Your task to perform on an android device: Open Youtube and go to the subscriptions tab Image 0: 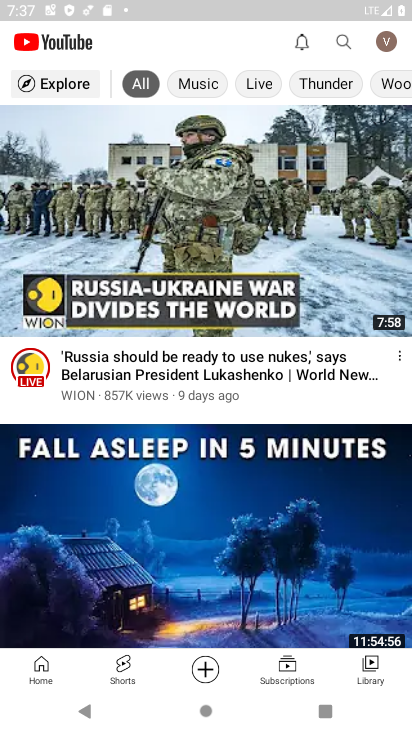
Step 0: press home button
Your task to perform on an android device: Open Youtube and go to the subscriptions tab Image 1: 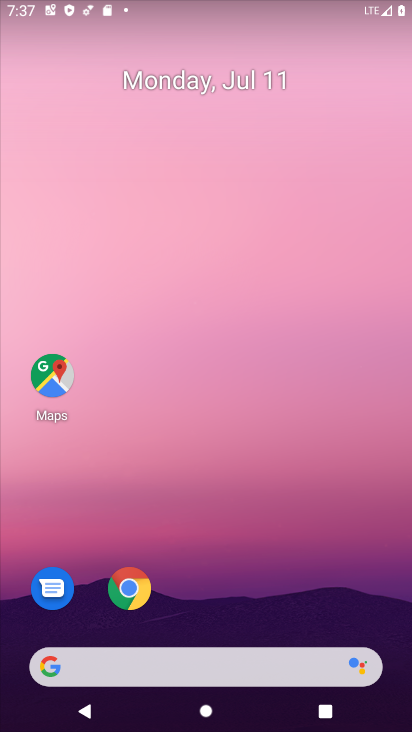
Step 1: drag from (379, 644) to (247, 4)
Your task to perform on an android device: Open Youtube and go to the subscriptions tab Image 2: 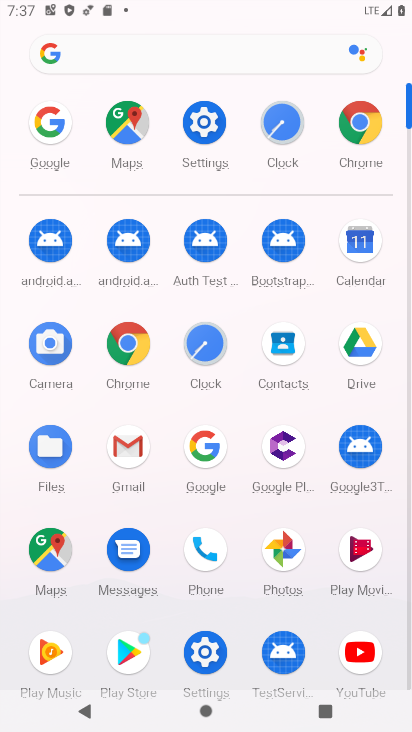
Step 2: click (356, 661)
Your task to perform on an android device: Open Youtube and go to the subscriptions tab Image 3: 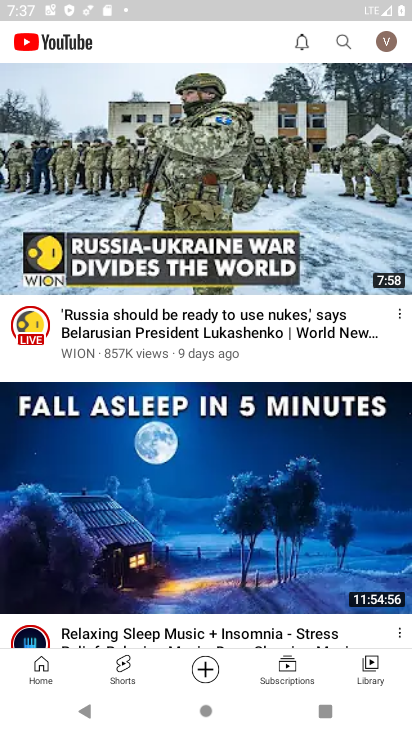
Step 3: click (275, 664)
Your task to perform on an android device: Open Youtube and go to the subscriptions tab Image 4: 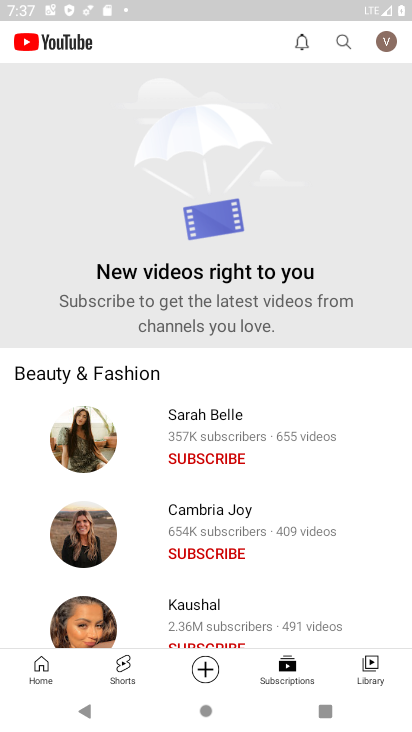
Step 4: task complete